Your task to perform on an android device: clear history in the chrome app Image 0: 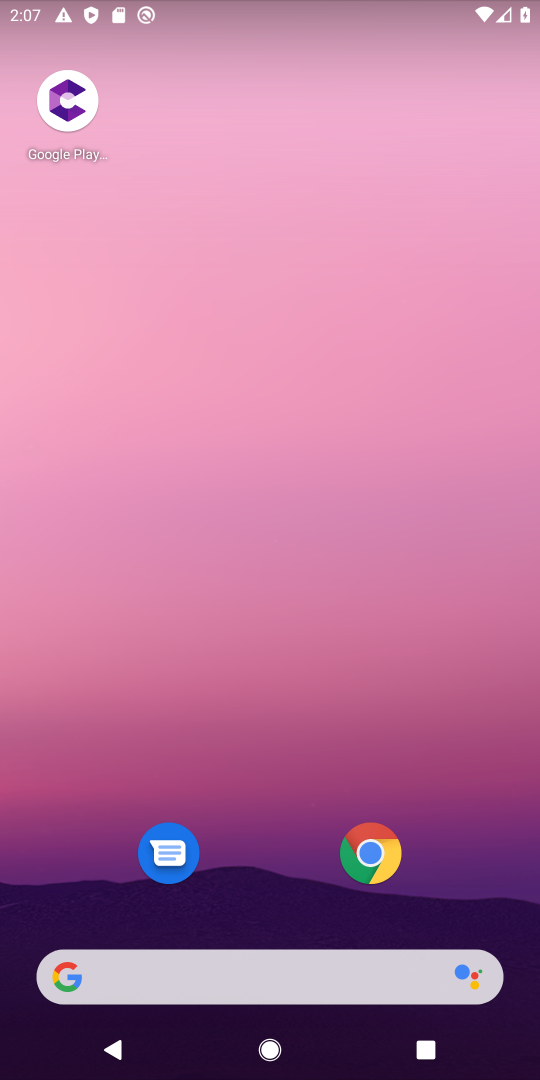
Step 0: click (372, 864)
Your task to perform on an android device: clear history in the chrome app Image 1: 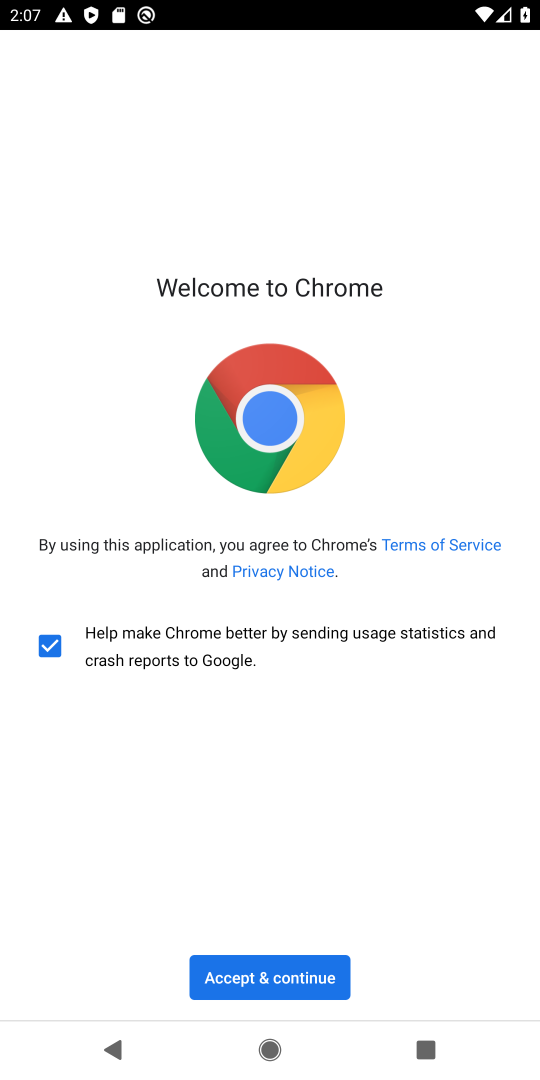
Step 1: click (275, 974)
Your task to perform on an android device: clear history in the chrome app Image 2: 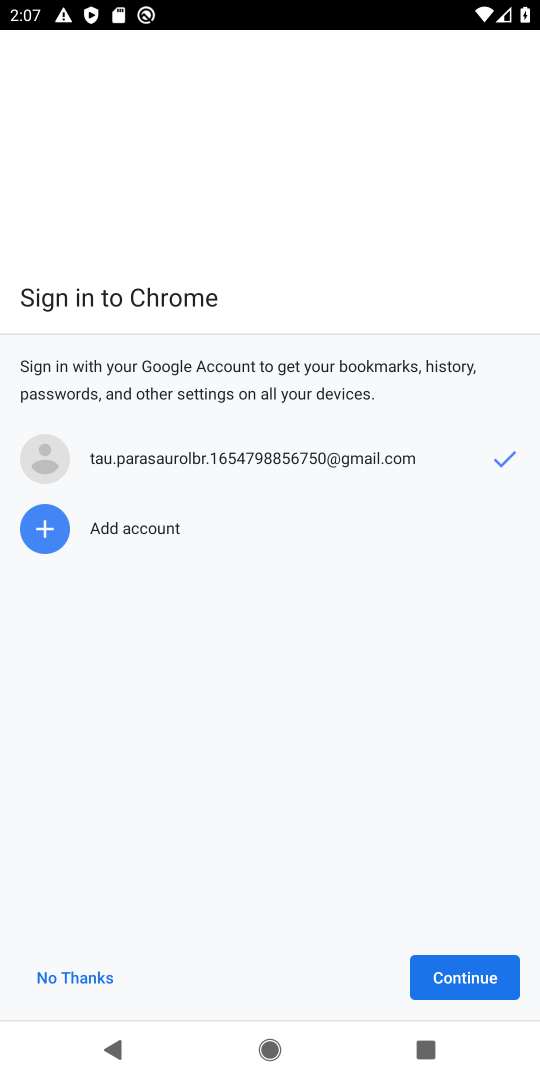
Step 2: click (446, 987)
Your task to perform on an android device: clear history in the chrome app Image 3: 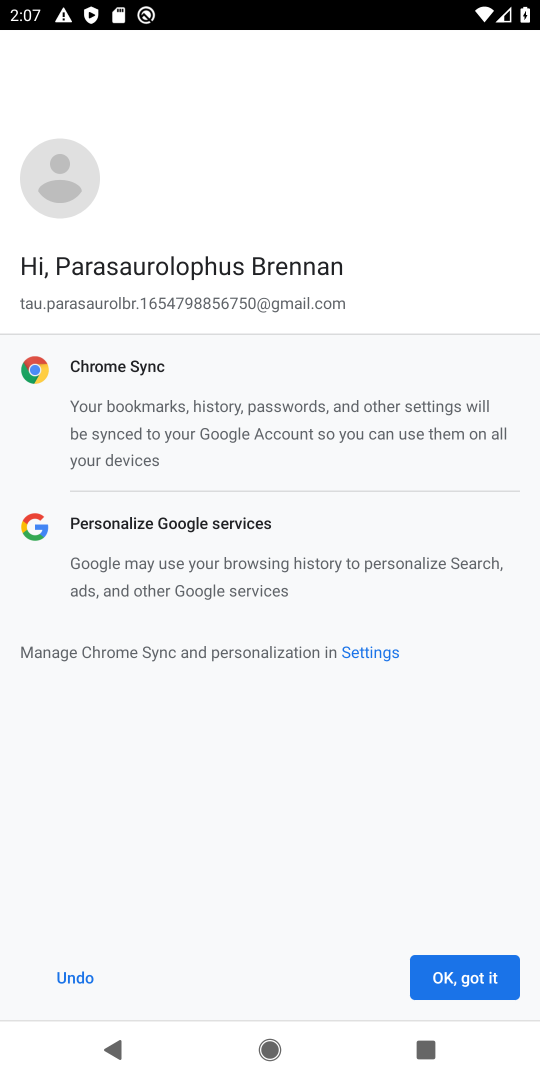
Step 3: click (429, 988)
Your task to perform on an android device: clear history in the chrome app Image 4: 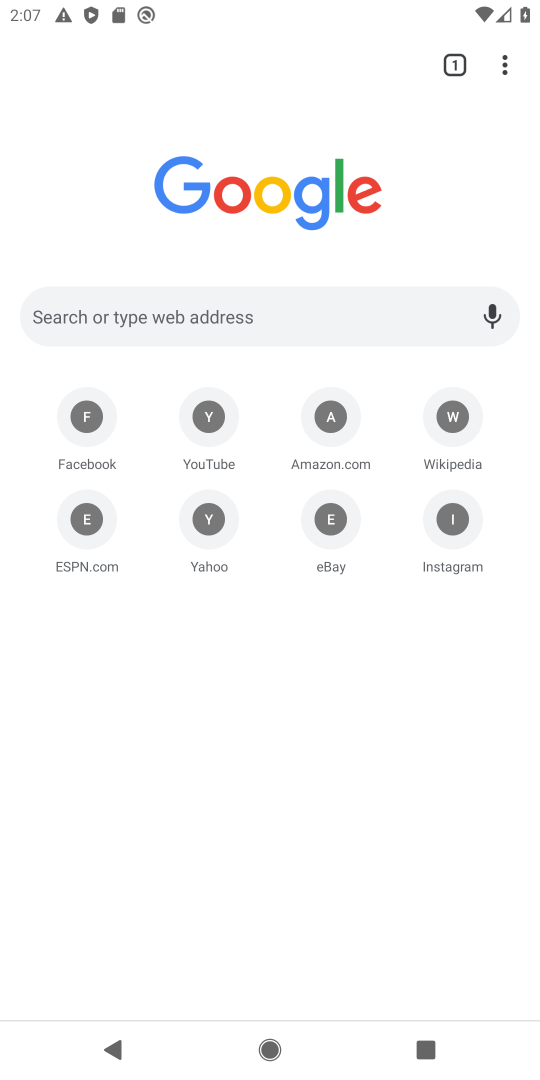
Step 4: task complete